Your task to perform on an android device: delete the emails in spam in the gmail app Image 0: 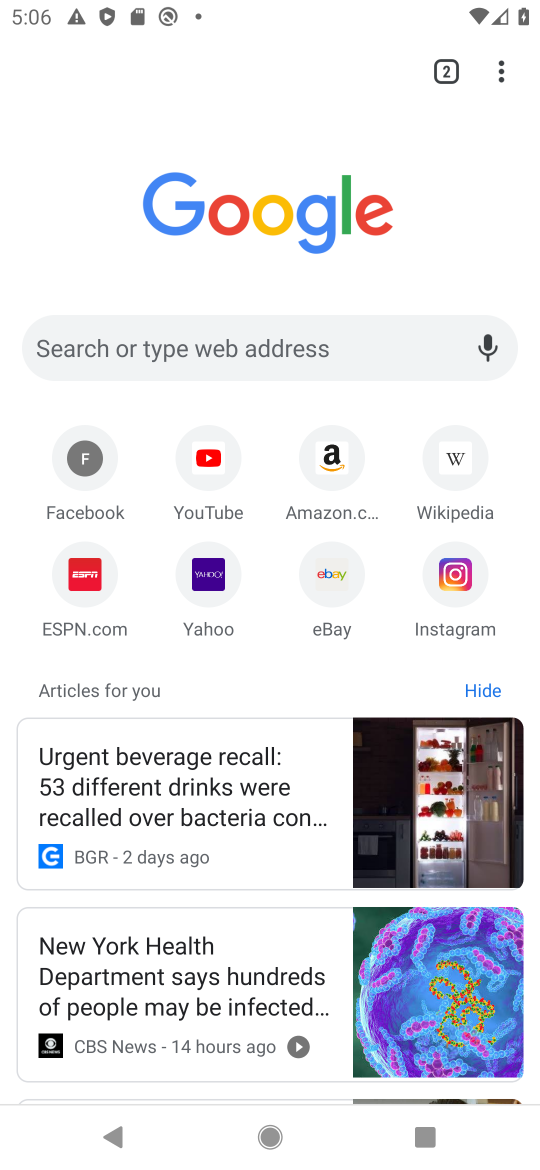
Step 0: click (508, 69)
Your task to perform on an android device: delete the emails in spam in the gmail app Image 1: 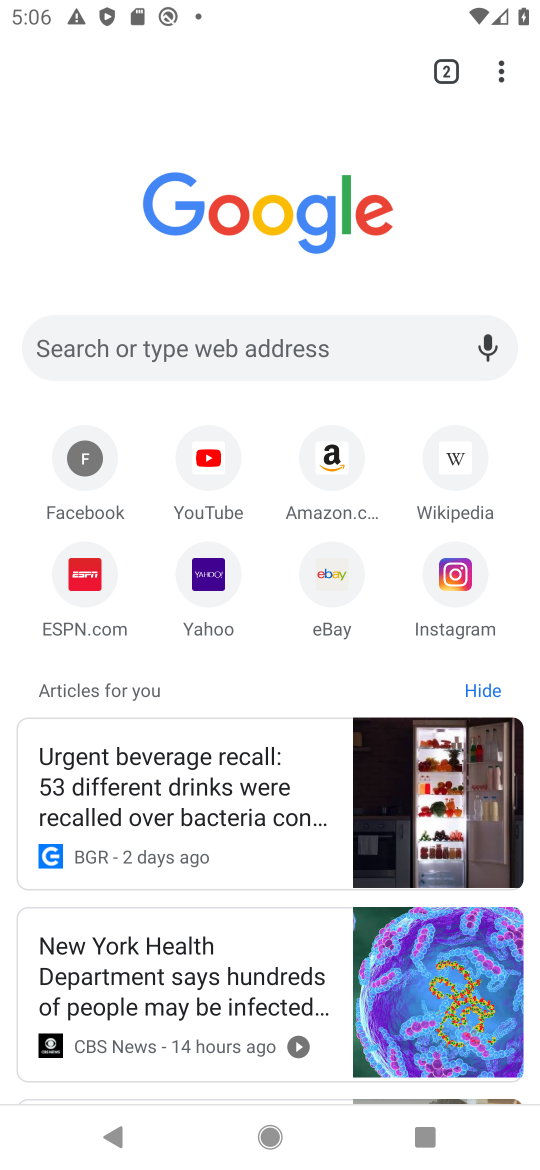
Step 1: click (494, 64)
Your task to perform on an android device: delete the emails in spam in the gmail app Image 2: 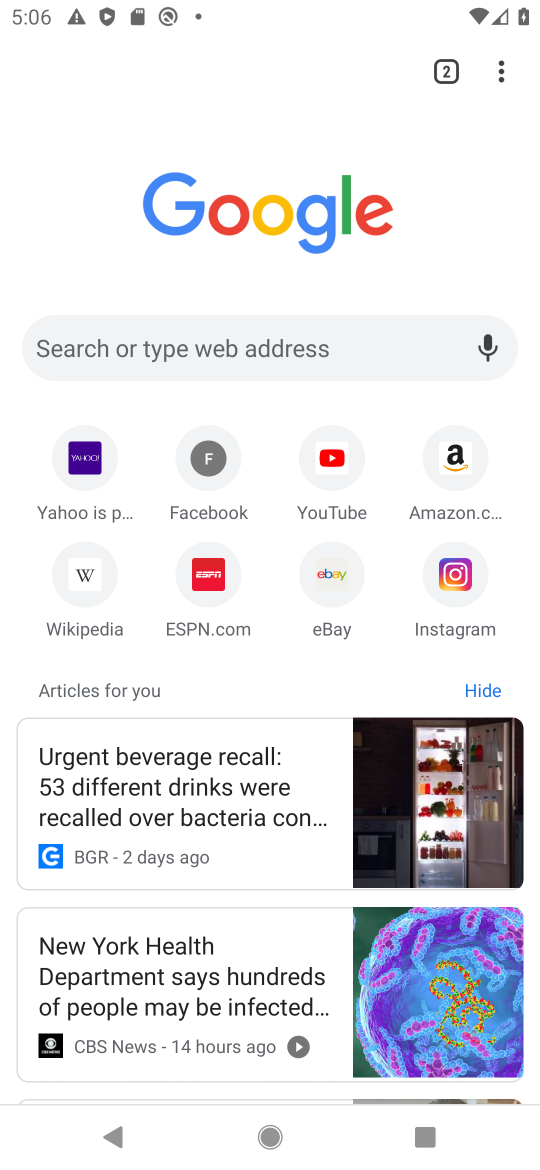
Step 2: click (494, 64)
Your task to perform on an android device: delete the emails in spam in the gmail app Image 3: 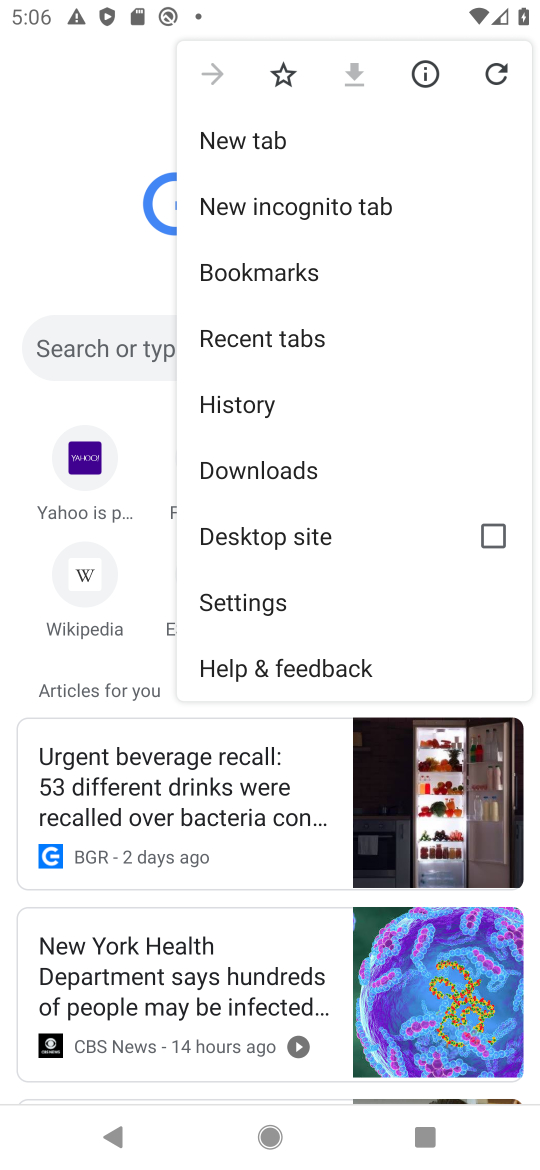
Step 3: press home button
Your task to perform on an android device: delete the emails in spam in the gmail app Image 4: 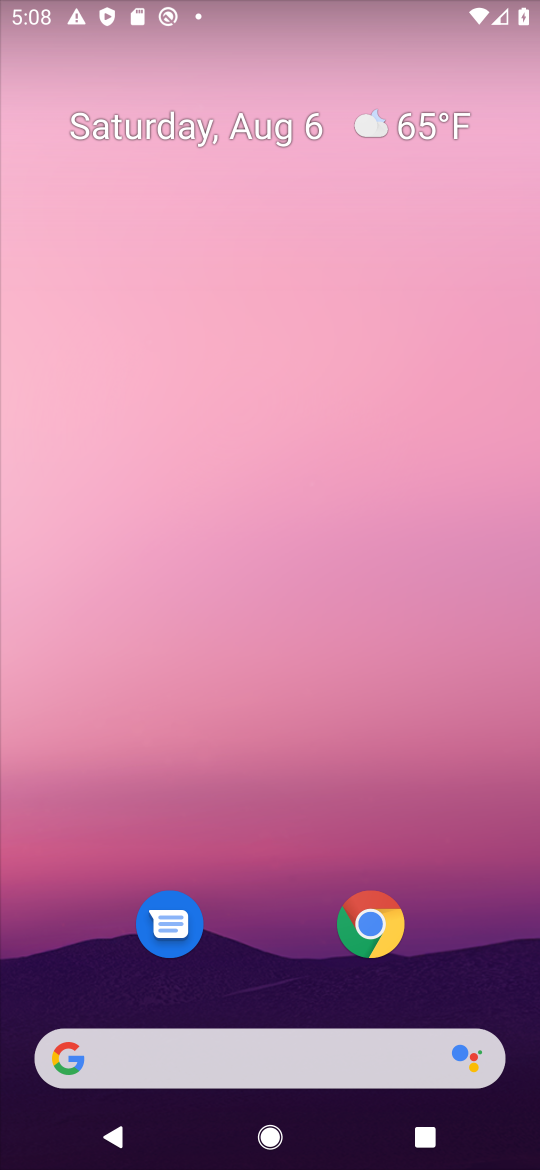
Step 4: drag from (223, 1099) to (488, 113)
Your task to perform on an android device: delete the emails in spam in the gmail app Image 5: 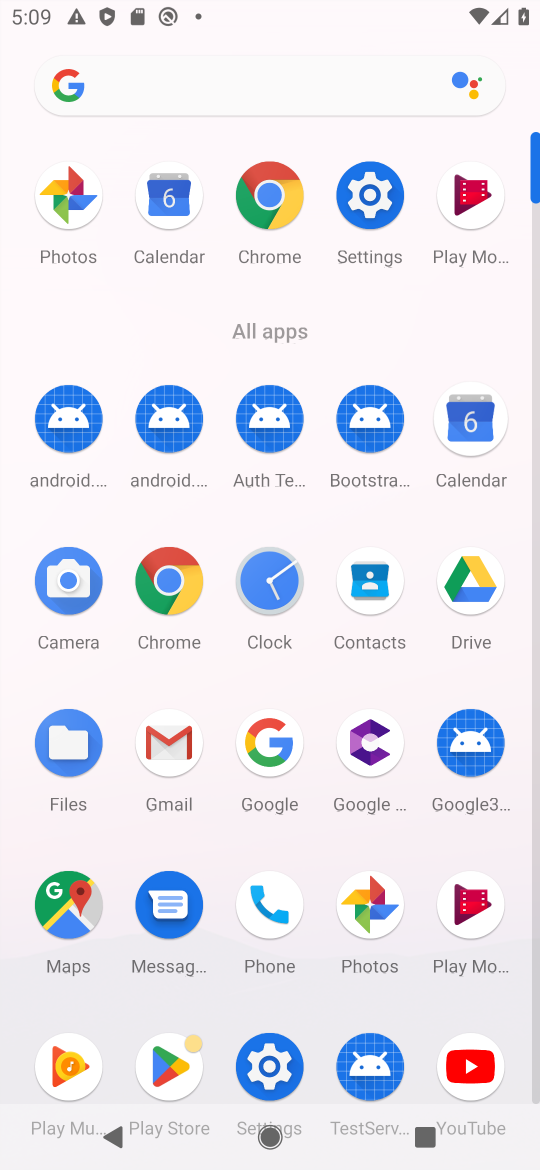
Step 5: click (170, 746)
Your task to perform on an android device: delete the emails in spam in the gmail app Image 6: 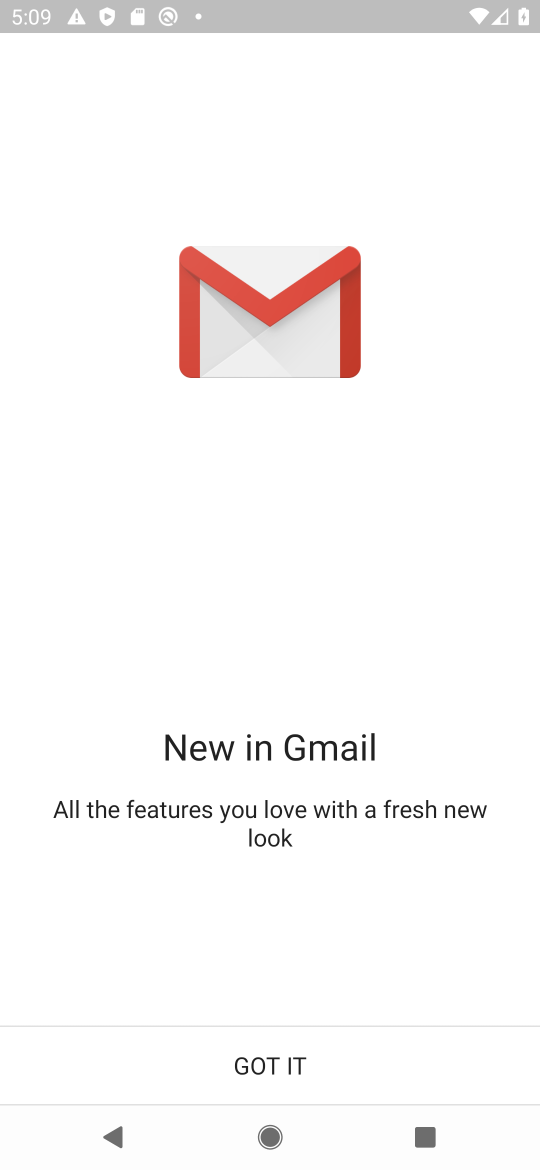
Step 6: click (170, 746)
Your task to perform on an android device: delete the emails in spam in the gmail app Image 7: 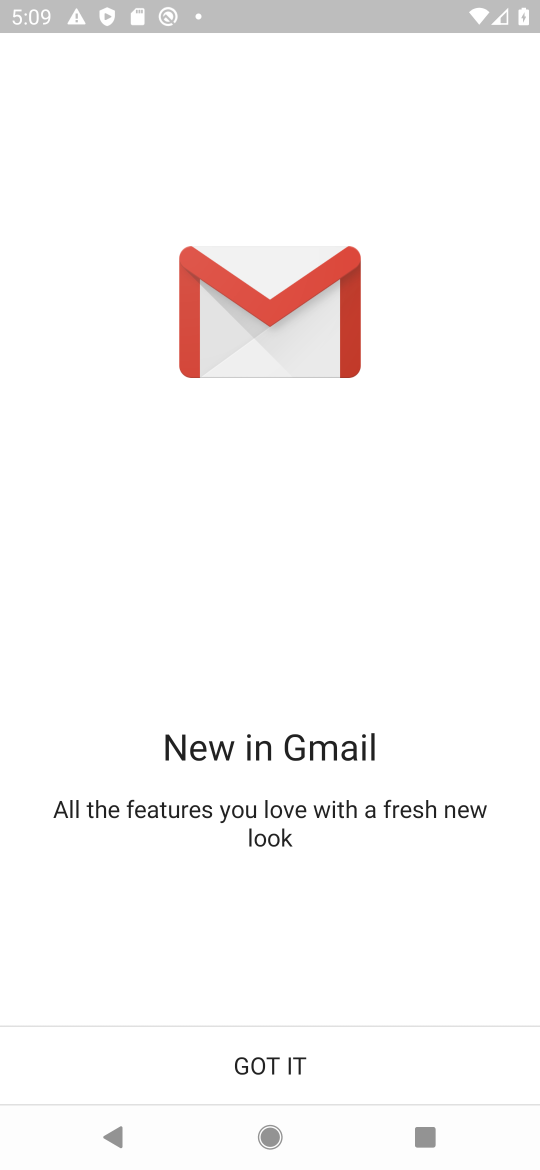
Step 7: click (321, 1061)
Your task to perform on an android device: delete the emails in spam in the gmail app Image 8: 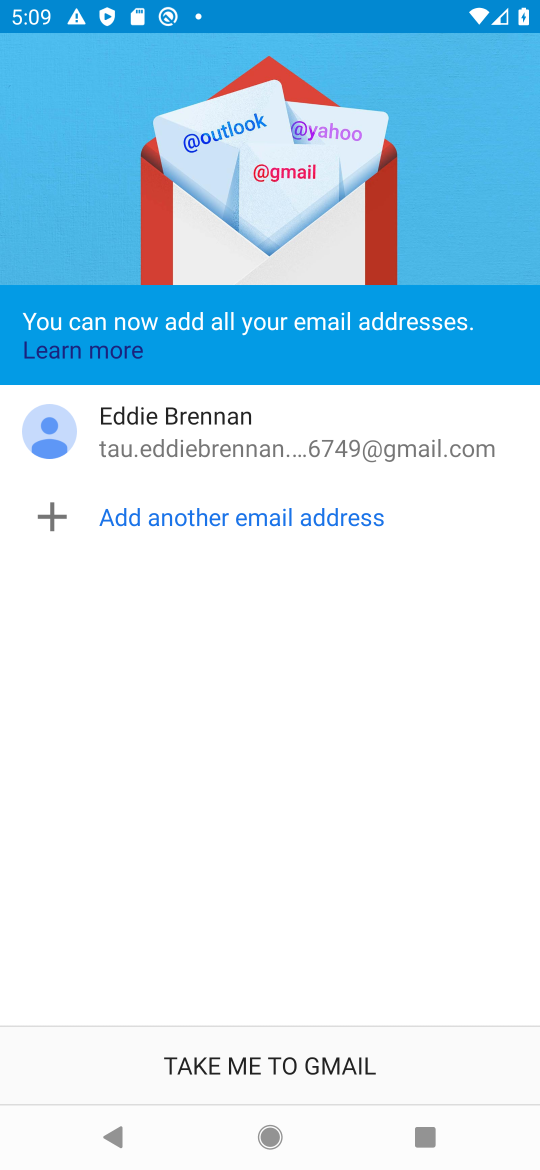
Step 8: click (321, 1061)
Your task to perform on an android device: delete the emails in spam in the gmail app Image 9: 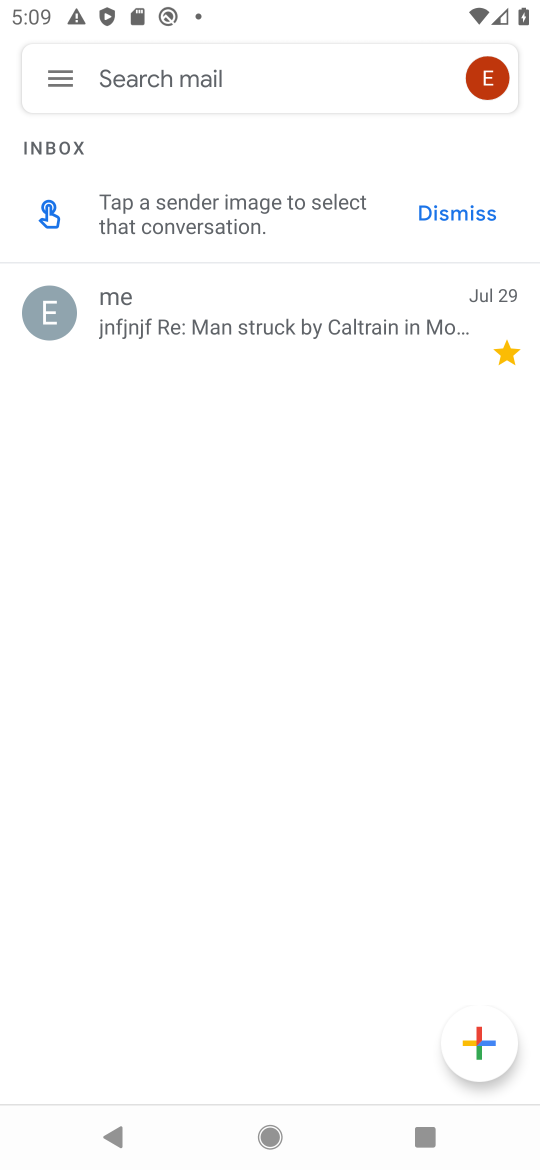
Step 9: click (389, 309)
Your task to perform on an android device: delete the emails in spam in the gmail app Image 10: 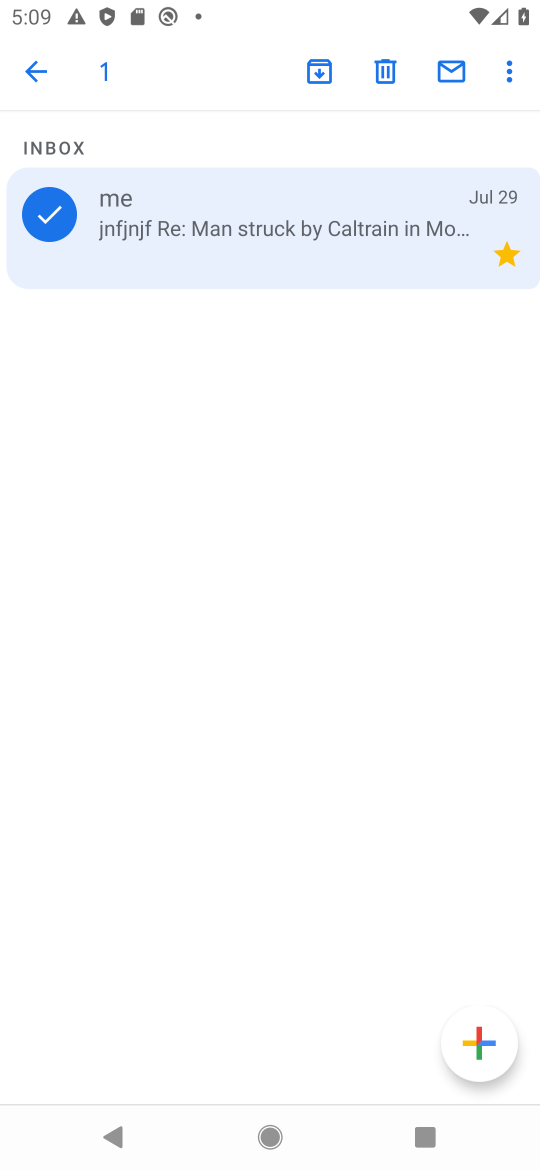
Step 10: click (519, 64)
Your task to perform on an android device: delete the emails in spam in the gmail app Image 11: 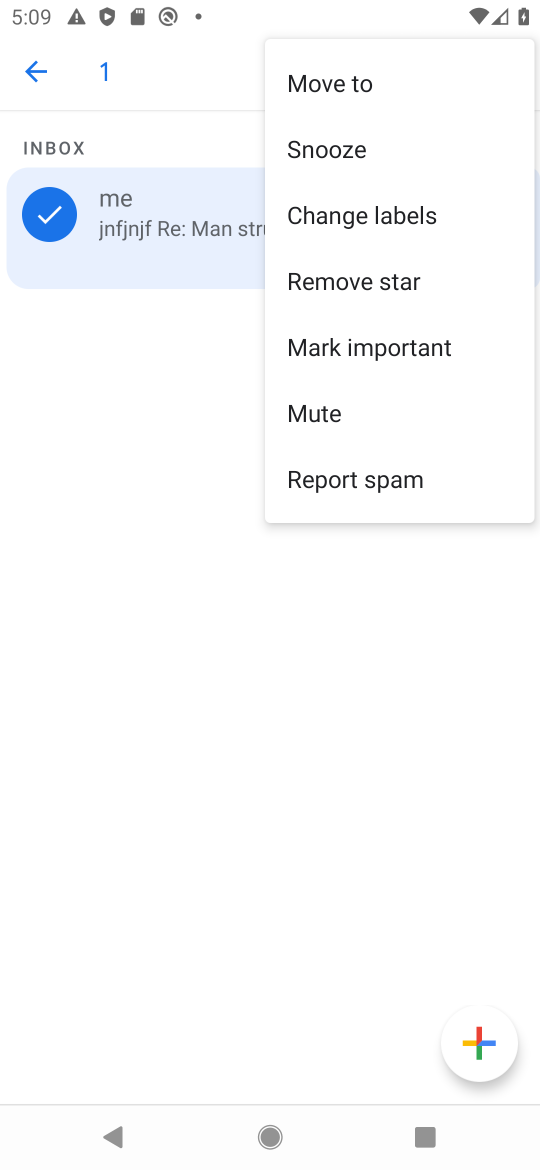
Step 11: click (168, 587)
Your task to perform on an android device: delete the emails in spam in the gmail app Image 12: 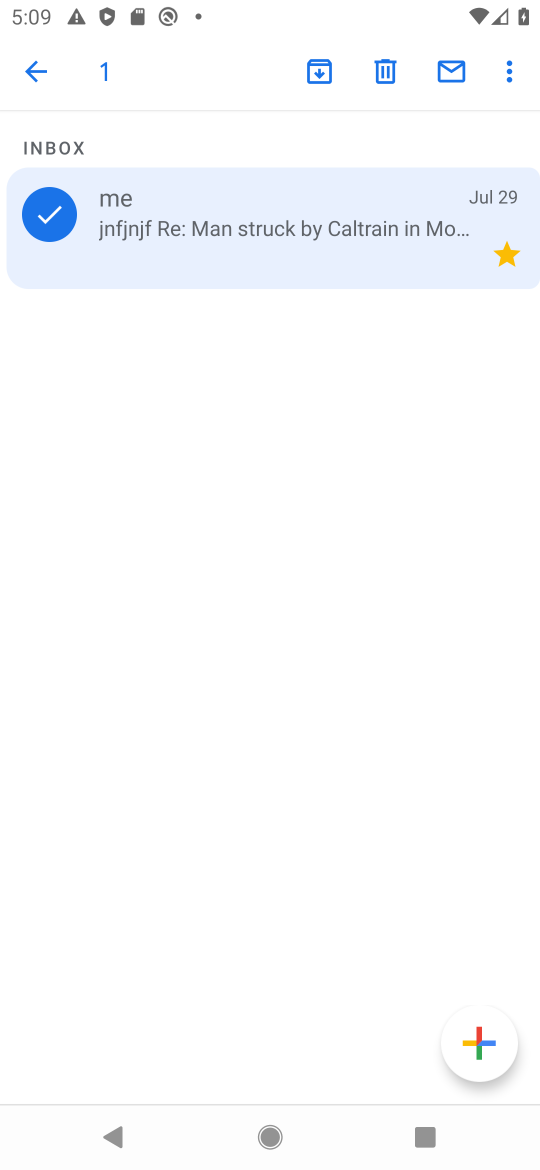
Step 12: click (376, 73)
Your task to perform on an android device: delete the emails in spam in the gmail app Image 13: 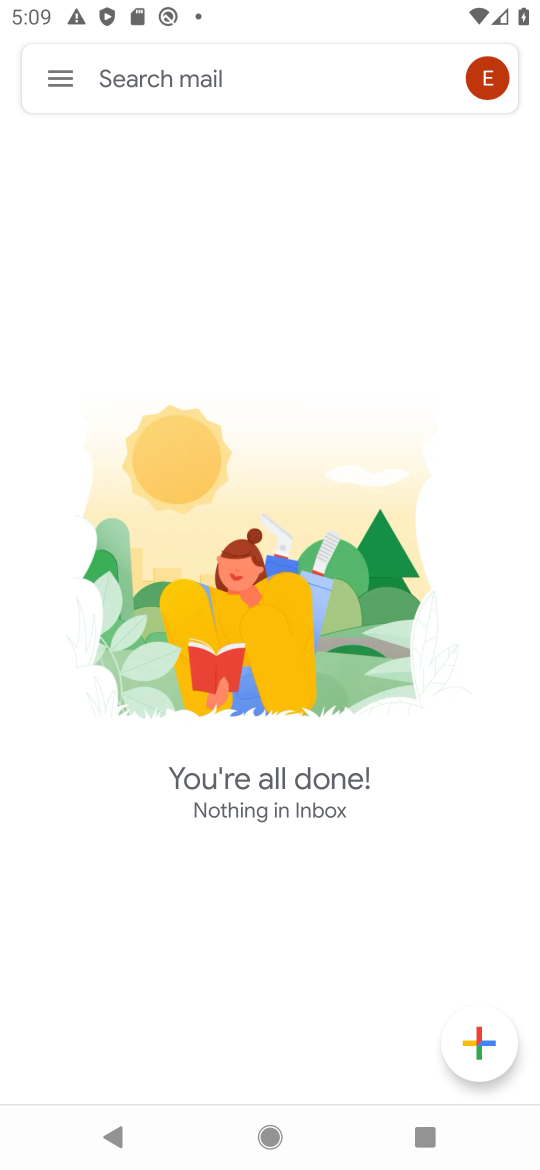
Step 13: task complete